Your task to perform on an android device: Open the Play Movies app and select the watchlist tab. Image 0: 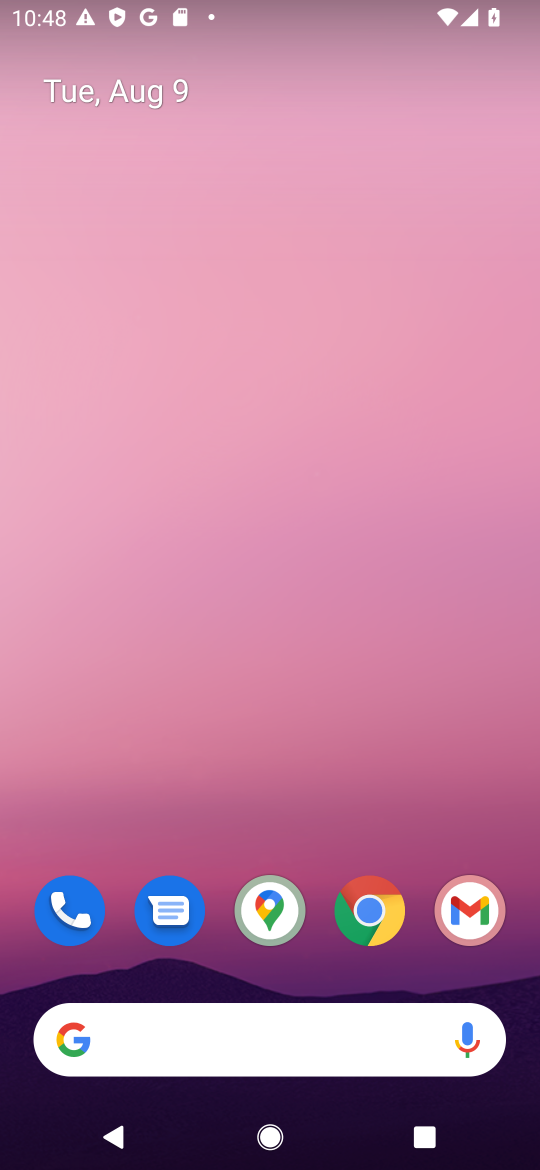
Step 0: drag from (78, 527) to (301, 57)
Your task to perform on an android device: Open the Play Movies app and select the watchlist tab. Image 1: 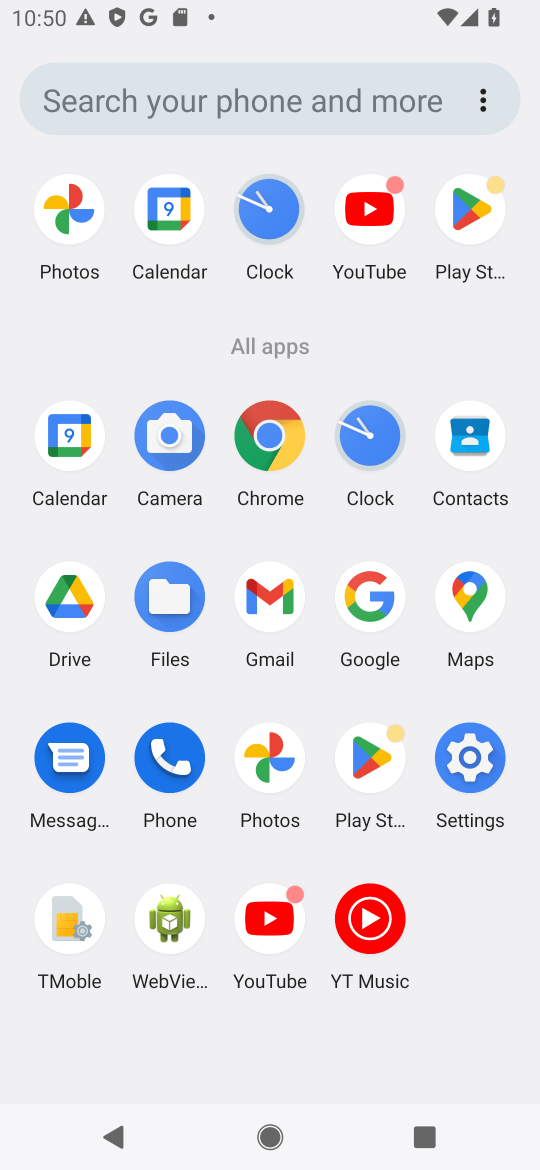
Step 1: task complete